Your task to perform on an android device: Open Google Maps Image 0: 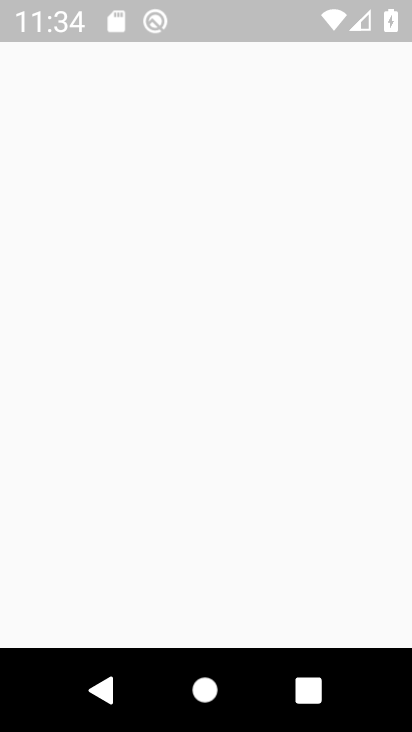
Step 0: press home button
Your task to perform on an android device: Open Google Maps Image 1: 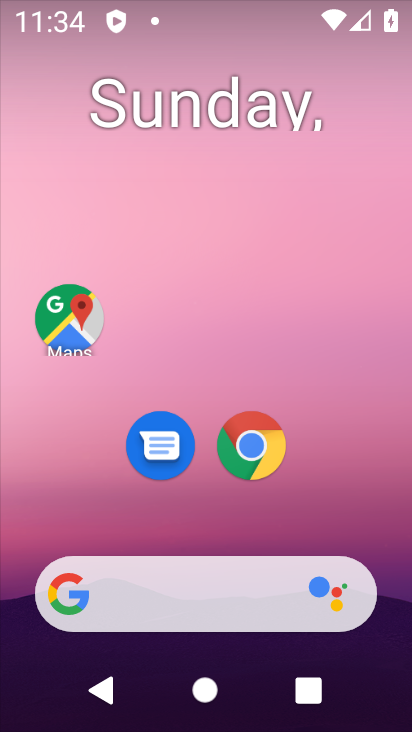
Step 1: drag from (346, 380) to (350, 103)
Your task to perform on an android device: Open Google Maps Image 2: 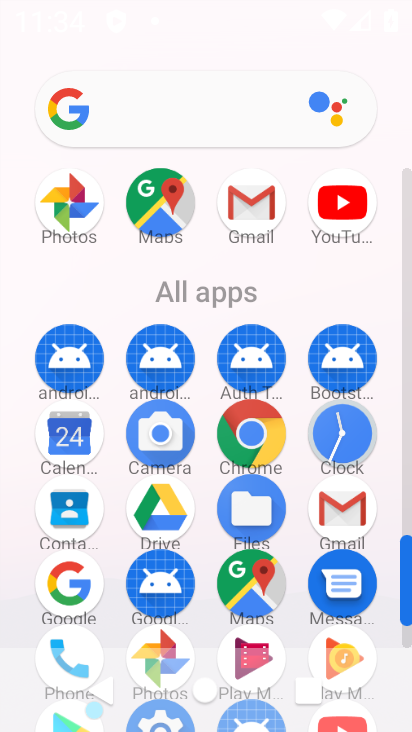
Step 2: click (170, 210)
Your task to perform on an android device: Open Google Maps Image 3: 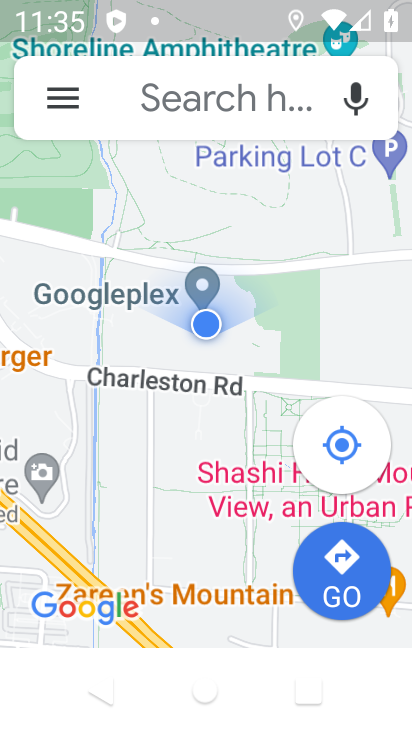
Step 3: task complete